Your task to perform on an android device: open app "Reddit" Image 0: 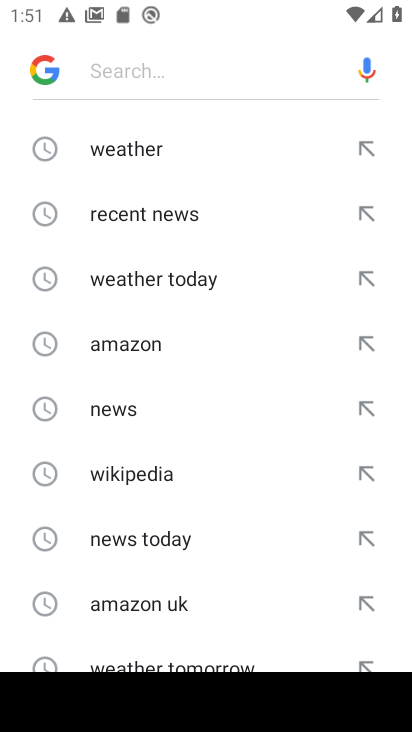
Step 0: press back button
Your task to perform on an android device: open app "Reddit" Image 1: 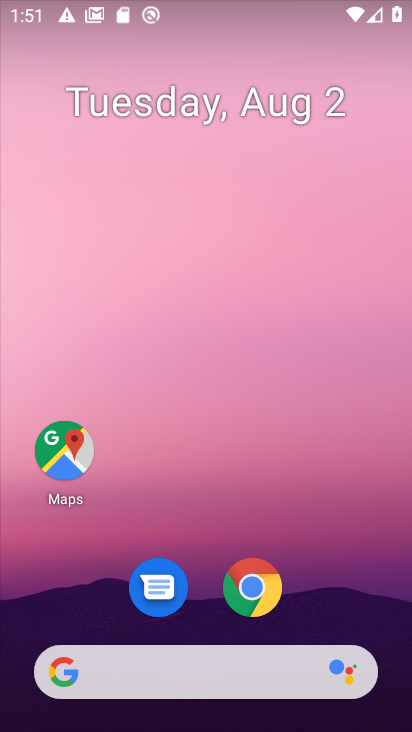
Step 1: drag from (210, 568) to (247, 179)
Your task to perform on an android device: open app "Reddit" Image 2: 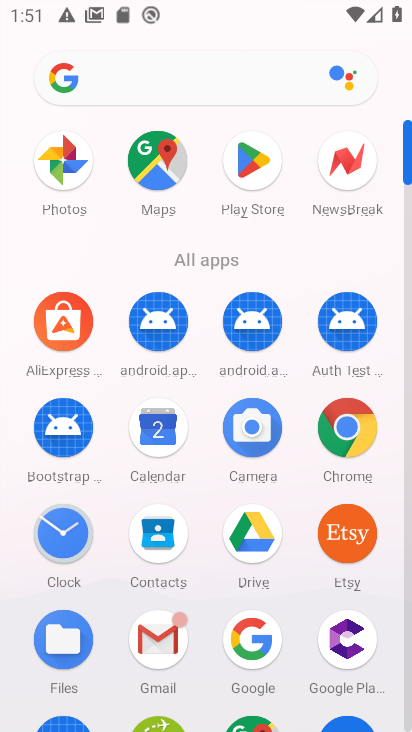
Step 2: click (227, 163)
Your task to perform on an android device: open app "Reddit" Image 3: 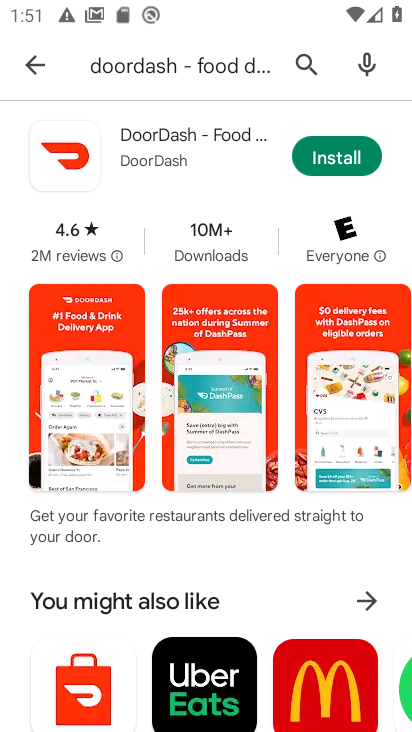
Step 3: click (302, 65)
Your task to perform on an android device: open app "Reddit" Image 4: 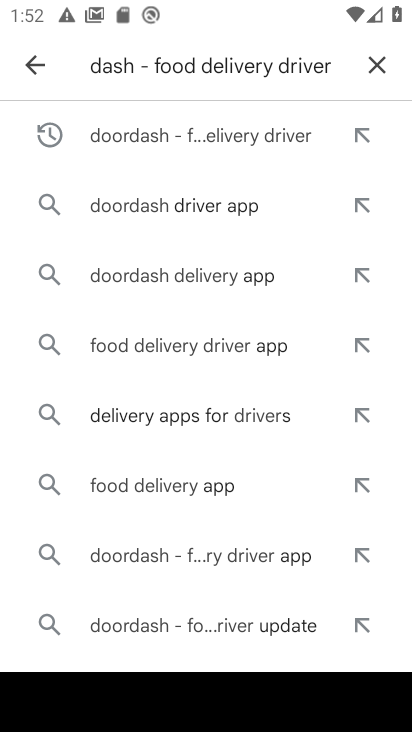
Step 4: press home button
Your task to perform on an android device: open app "Reddit" Image 5: 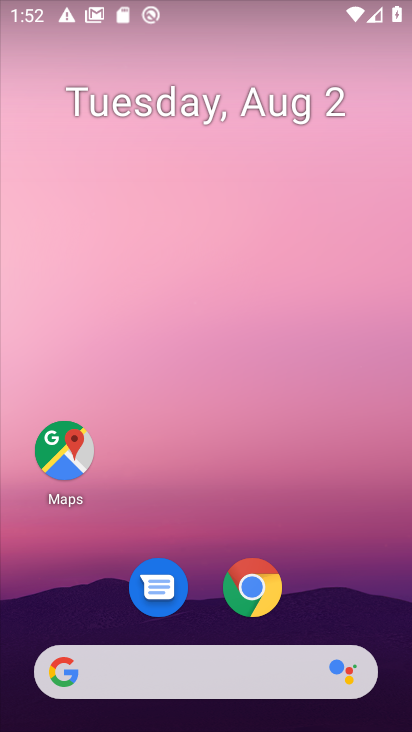
Step 5: drag from (211, 570) to (277, 117)
Your task to perform on an android device: open app "Reddit" Image 6: 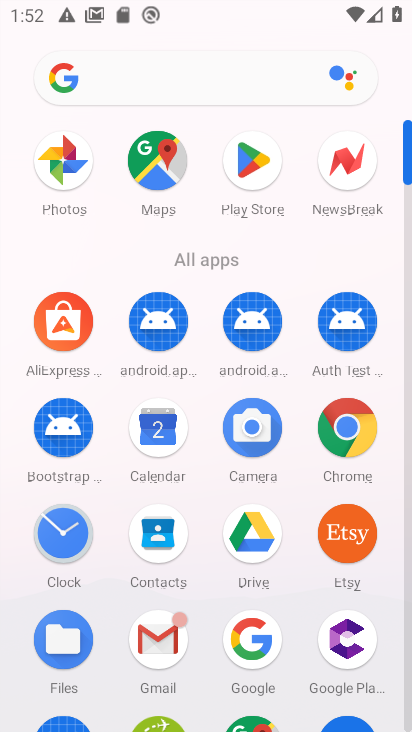
Step 6: click (242, 180)
Your task to perform on an android device: open app "Reddit" Image 7: 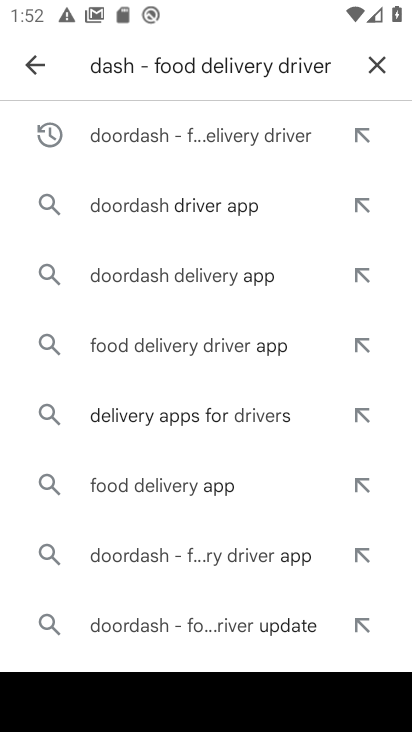
Step 7: click (379, 67)
Your task to perform on an android device: open app "Reddit" Image 8: 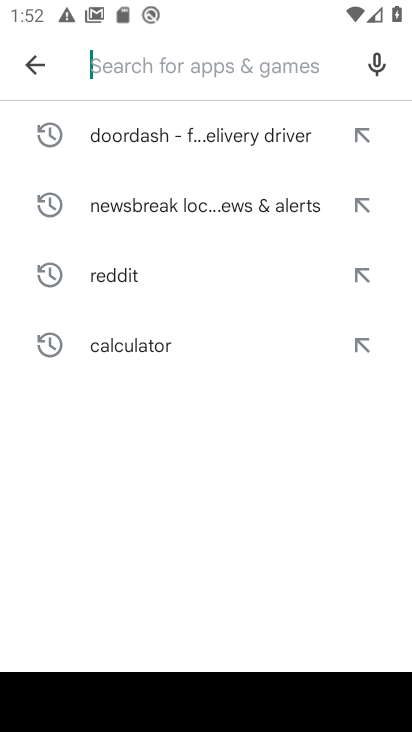
Step 8: click (206, 62)
Your task to perform on an android device: open app "Reddit" Image 9: 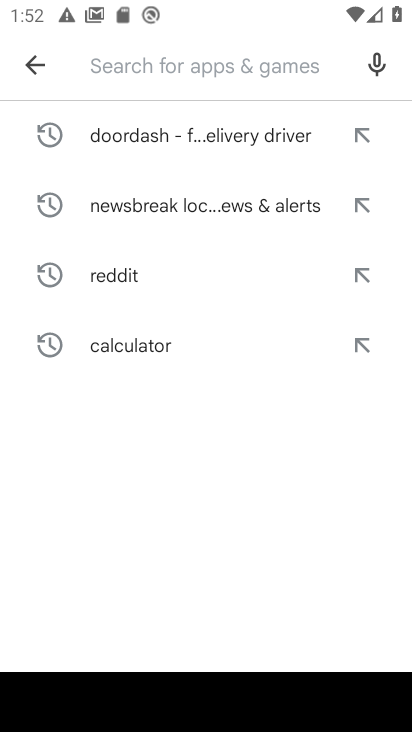
Step 9: type "Reddit"
Your task to perform on an android device: open app "Reddit" Image 10: 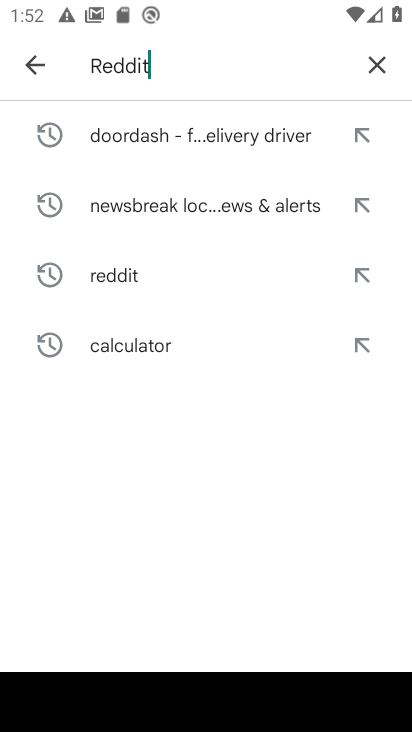
Step 10: type ""
Your task to perform on an android device: open app "Reddit" Image 11: 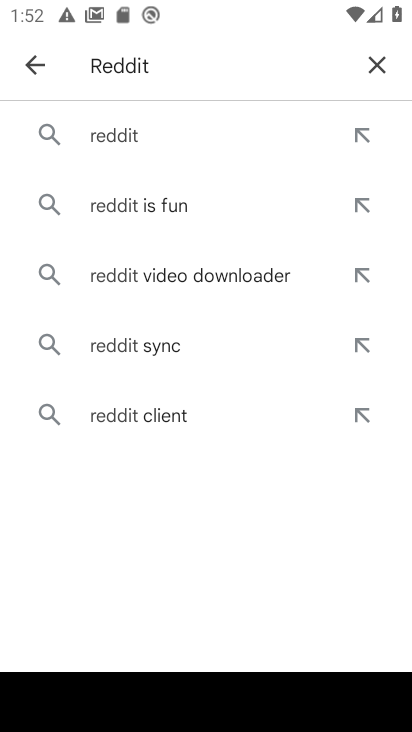
Step 11: click (154, 122)
Your task to perform on an android device: open app "Reddit" Image 12: 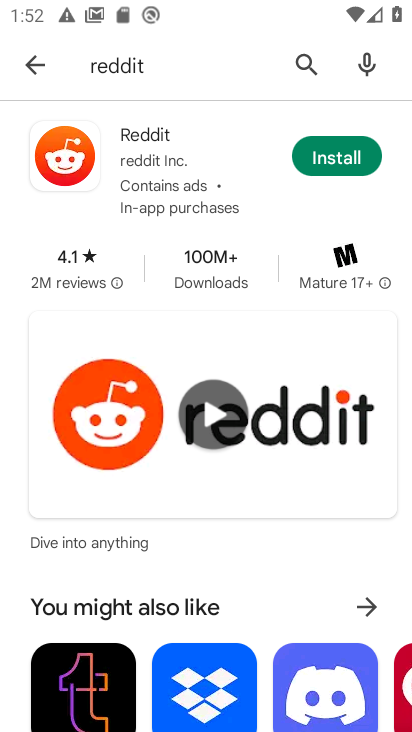
Step 12: task complete